Your task to perform on an android device: turn off picture-in-picture Image 0: 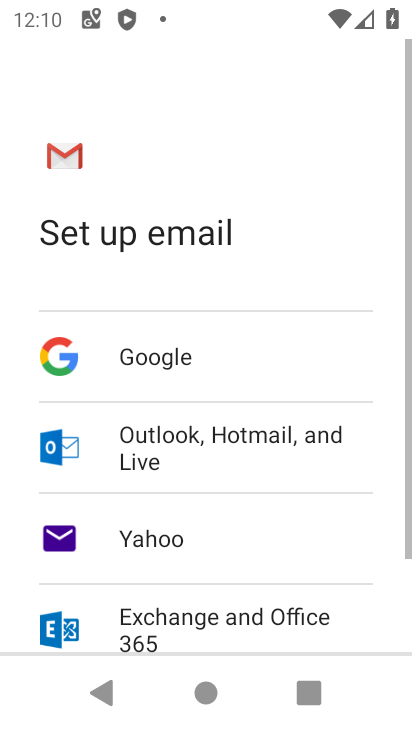
Step 0: press back button
Your task to perform on an android device: turn off picture-in-picture Image 1: 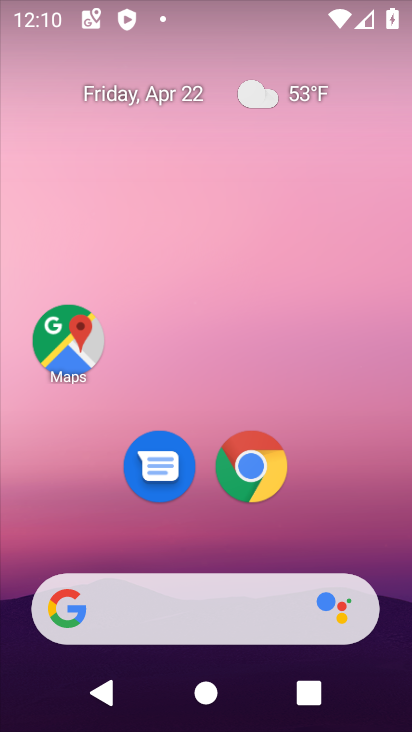
Step 1: drag from (332, 471) to (285, 22)
Your task to perform on an android device: turn off picture-in-picture Image 2: 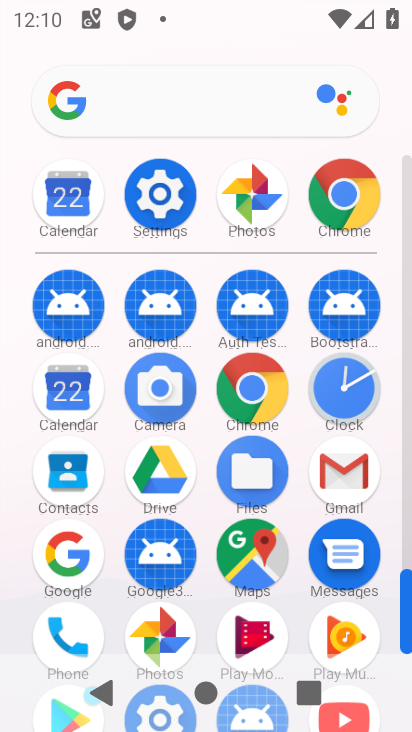
Step 2: click (155, 194)
Your task to perform on an android device: turn off picture-in-picture Image 3: 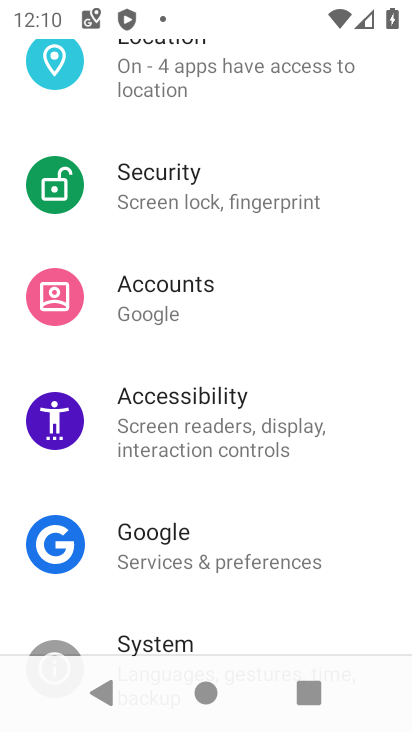
Step 3: drag from (295, 133) to (281, 454)
Your task to perform on an android device: turn off picture-in-picture Image 4: 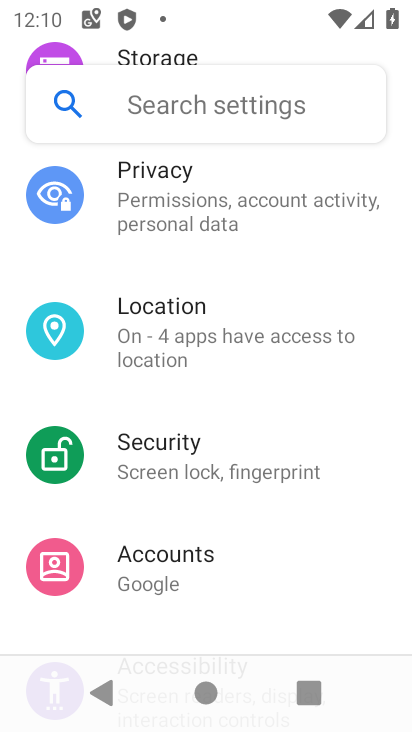
Step 4: drag from (280, 197) to (270, 472)
Your task to perform on an android device: turn off picture-in-picture Image 5: 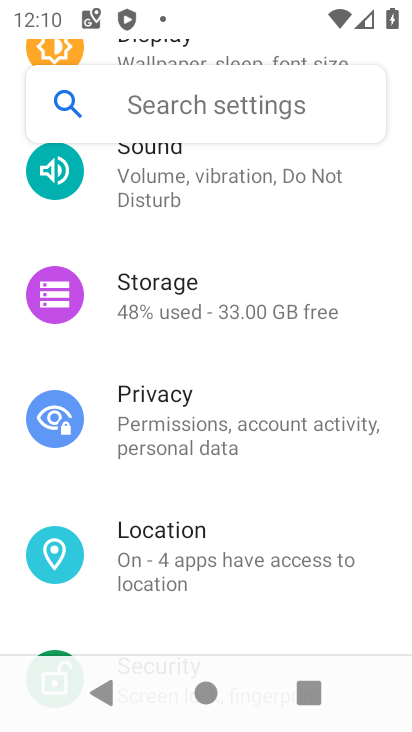
Step 5: drag from (274, 264) to (284, 566)
Your task to perform on an android device: turn off picture-in-picture Image 6: 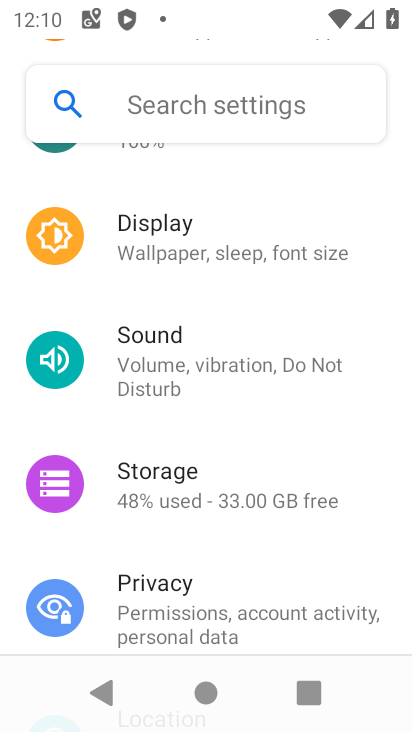
Step 6: drag from (268, 240) to (292, 590)
Your task to perform on an android device: turn off picture-in-picture Image 7: 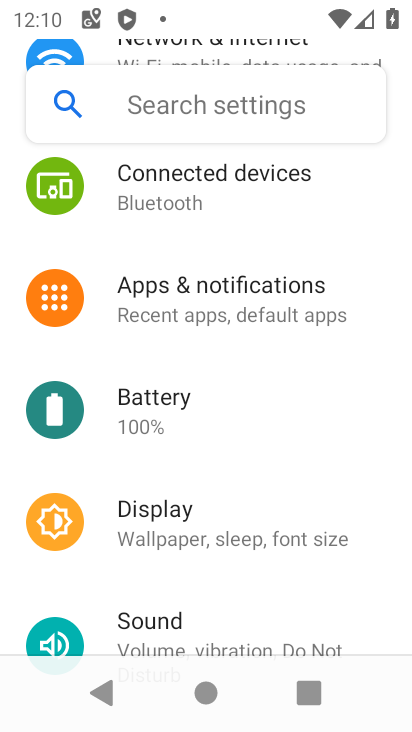
Step 7: drag from (272, 286) to (253, 585)
Your task to perform on an android device: turn off picture-in-picture Image 8: 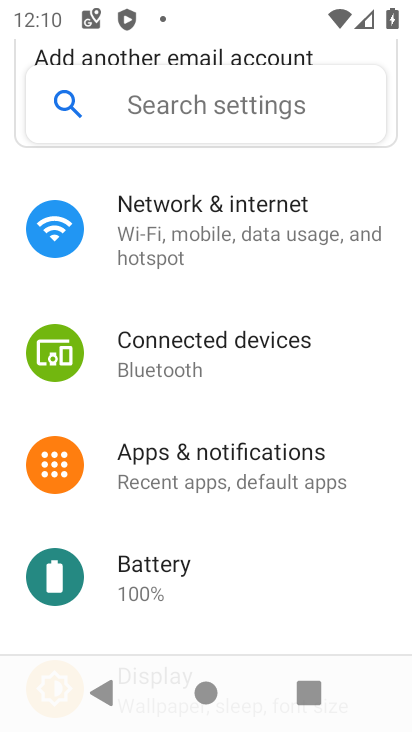
Step 8: drag from (285, 538) to (292, 236)
Your task to perform on an android device: turn off picture-in-picture Image 9: 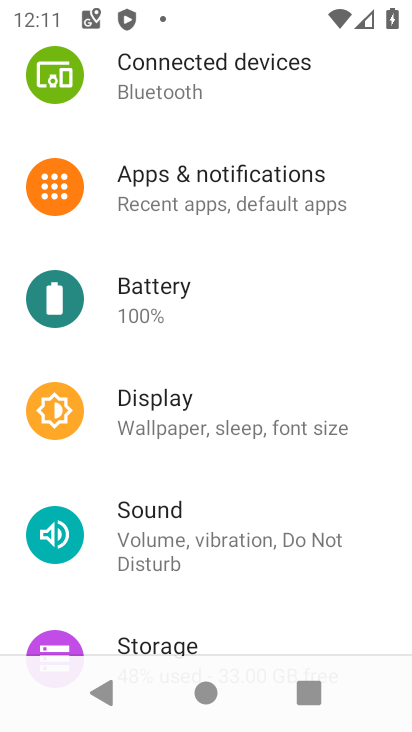
Step 9: click (224, 211)
Your task to perform on an android device: turn off picture-in-picture Image 10: 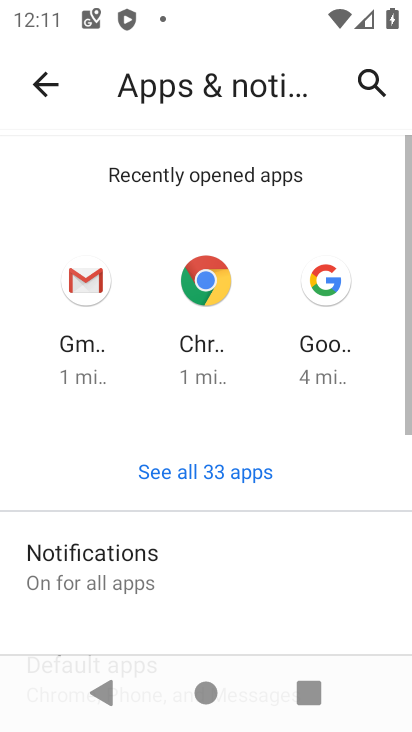
Step 10: drag from (289, 565) to (264, 171)
Your task to perform on an android device: turn off picture-in-picture Image 11: 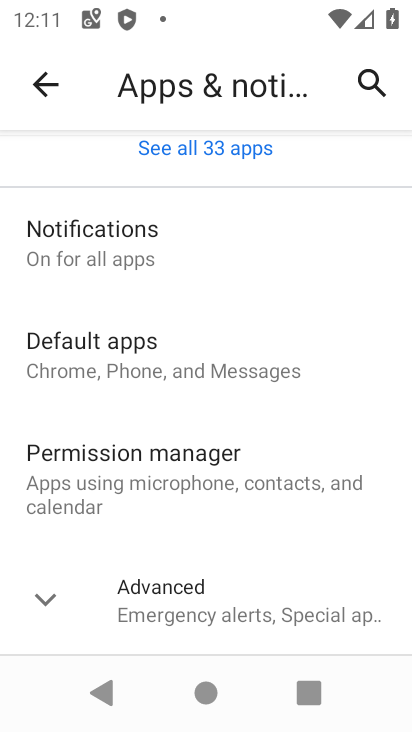
Step 11: click (45, 583)
Your task to perform on an android device: turn off picture-in-picture Image 12: 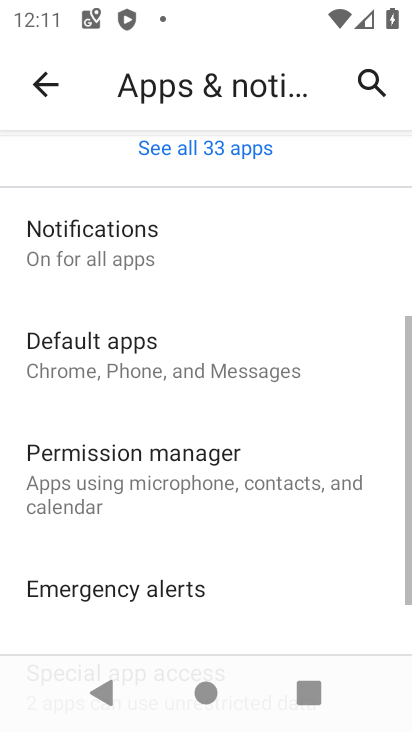
Step 12: drag from (302, 518) to (286, 158)
Your task to perform on an android device: turn off picture-in-picture Image 13: 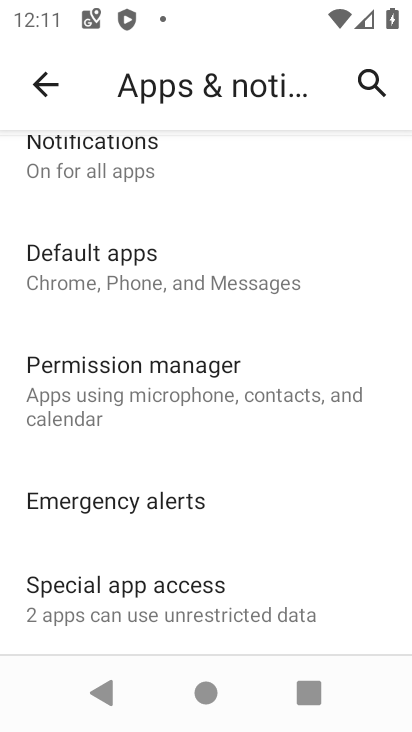
Step 13: click (183, 598)
Your task to perform on an android device: turn off picture-in-picture Image 14: 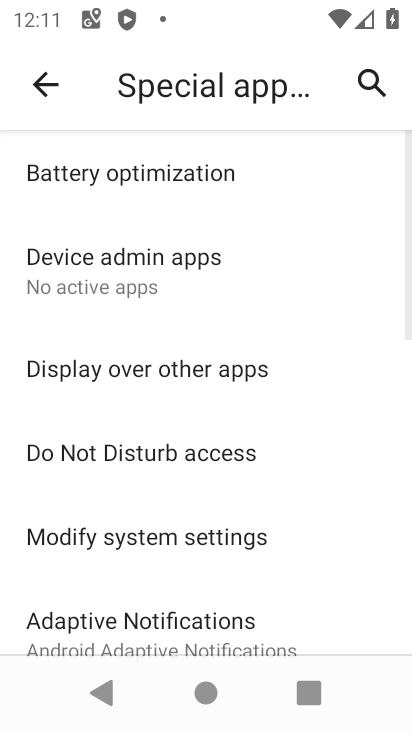
Step 14: drag from (304, 536) to (306, 124)
Your task to perform on an android device: turn off picture-in-picture Image 15: 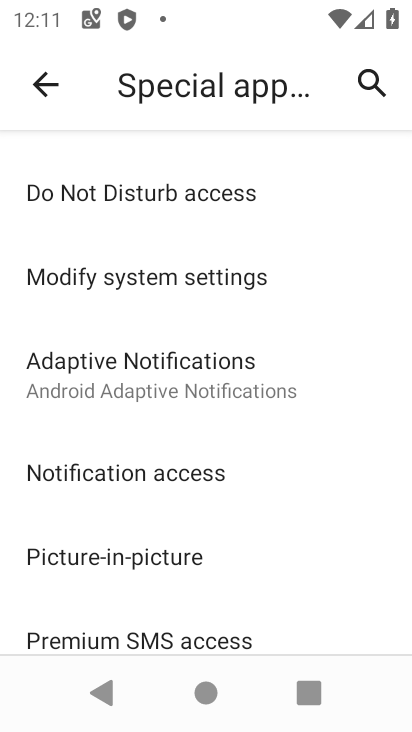
Step 15: click (181, 548)
Your task to perform on an android device: turn off picture-in-picture Image 16: 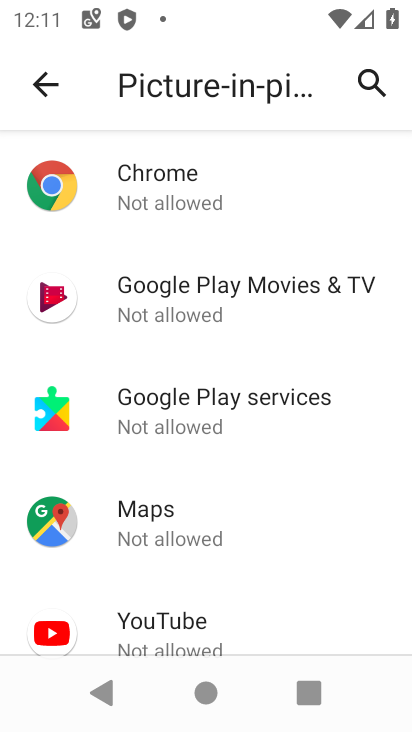
Step 16: task complete